Your task to perform on an android device: turn off data saver in the chrome app Image 0: 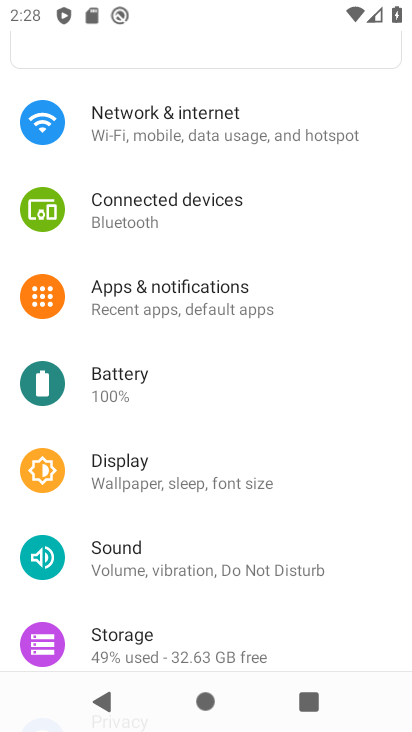
Step 0: press home button
Your task to perform on an android device: turn off data saver in the chrome app Image 1: 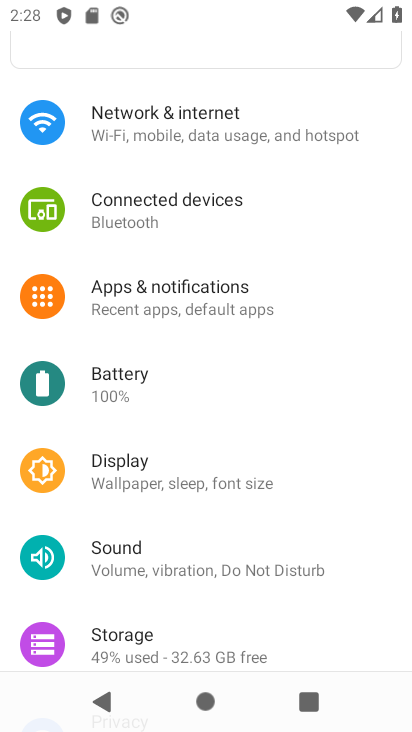
Step 1: press home button
Your task to perform on an android device: turn off data saver in the chrome app Image 2: 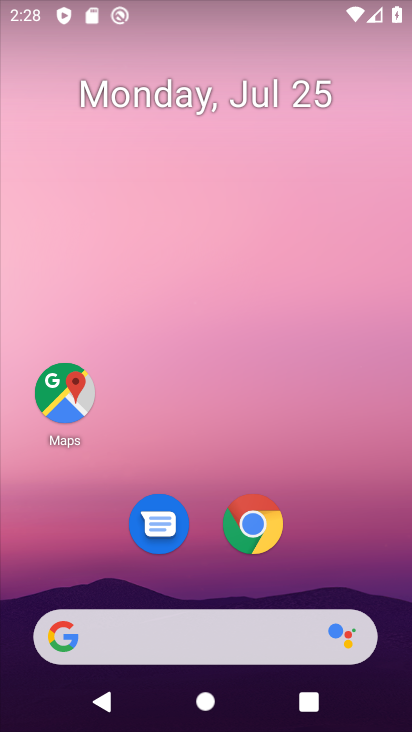
Step 2: click (262, 529)
Your task to perform on an android device: turn off data saver in the chrome app Image 3: 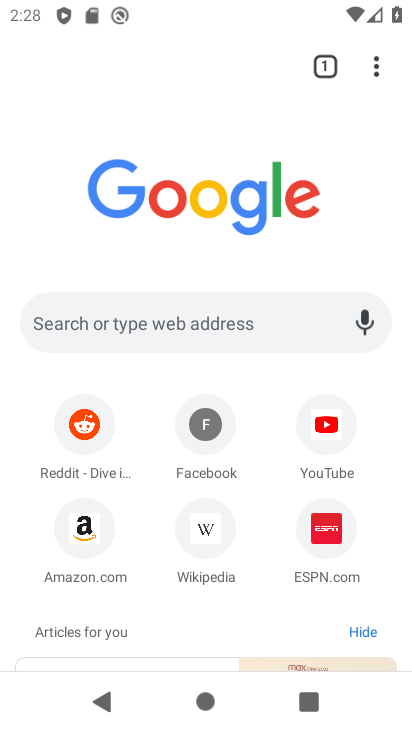
Step 3: click (376, 68)
Your task to perform on an android device: turn off data saver in the chrome app Image 4: 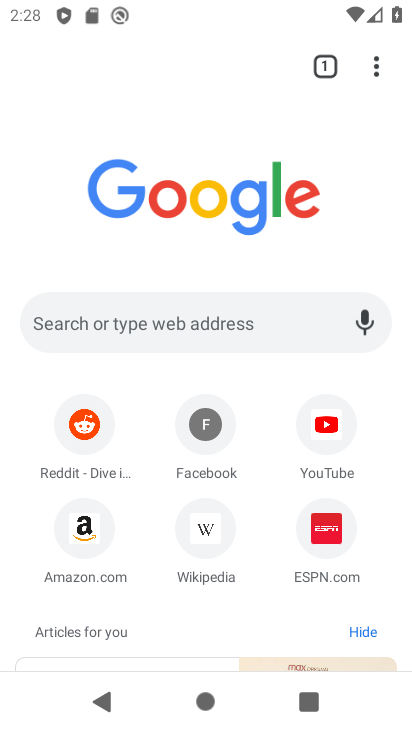
Step 4: click (376, 68)
Your task to perform on an android device: turn off data saver in the chrome app Image 5: 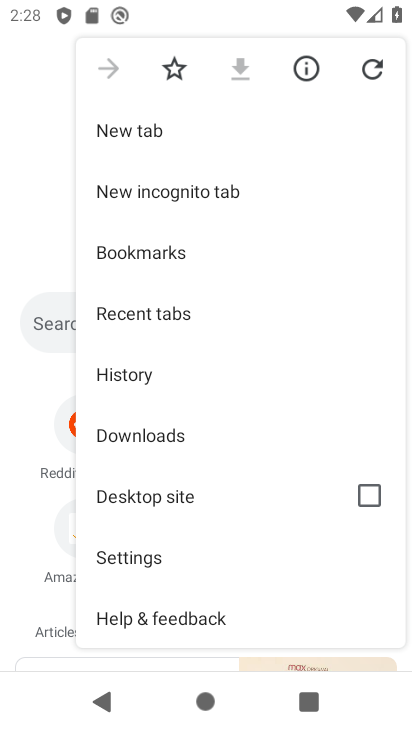
Step 5: click (127, 553)
Your task to perform on an android device: turn off data saver in the chrome app Image 6: 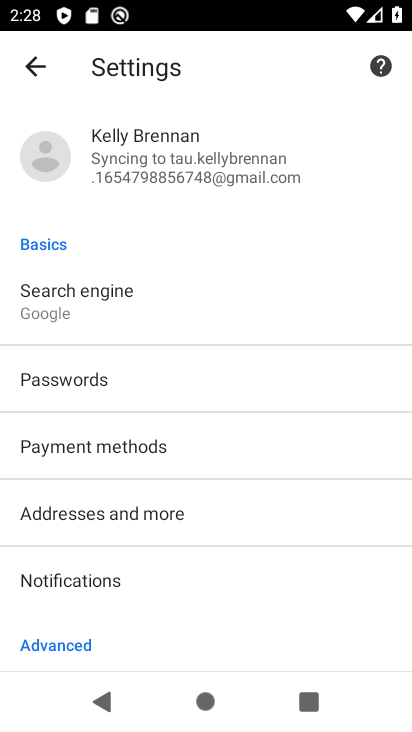
Step 6: drag from (180, 567) to (282, 105)
Your task to perform on an android device: turn off data saver in the chrome app Image 7: 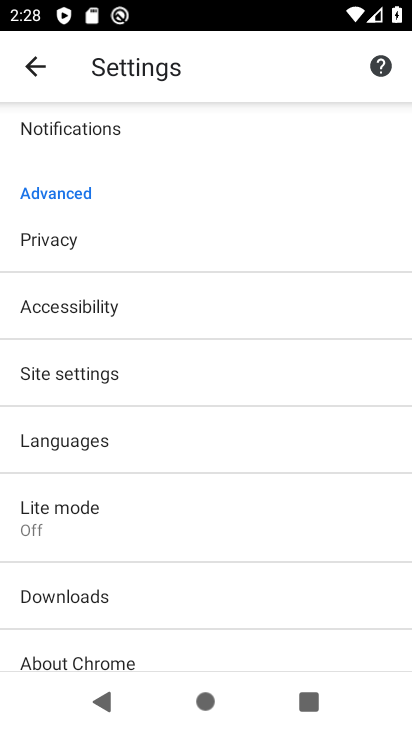
Step 7: click (137, 525)
Your task to perform on an android device: turn off data saver in the chrome app Image 8: 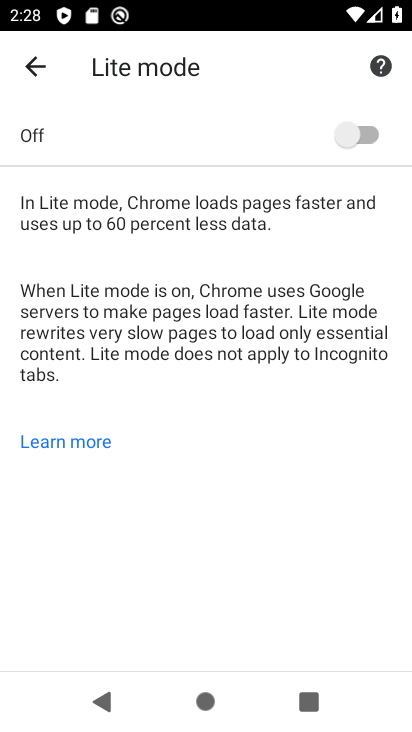
Step 8: task complete